Your task to perform on an android device: Open Google Chrome and click the shortcut for Amazon.com Image 0: 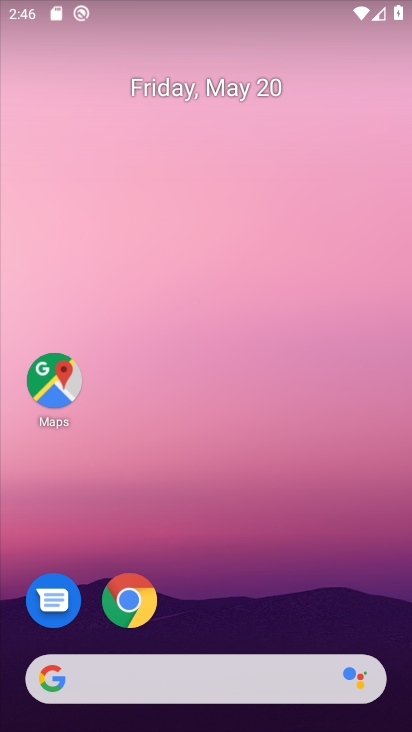
Step 0: click (139, 595)
Your task to perform on an android device: Open Google Chrome and click the shortcut for Amazon.com Image 1: 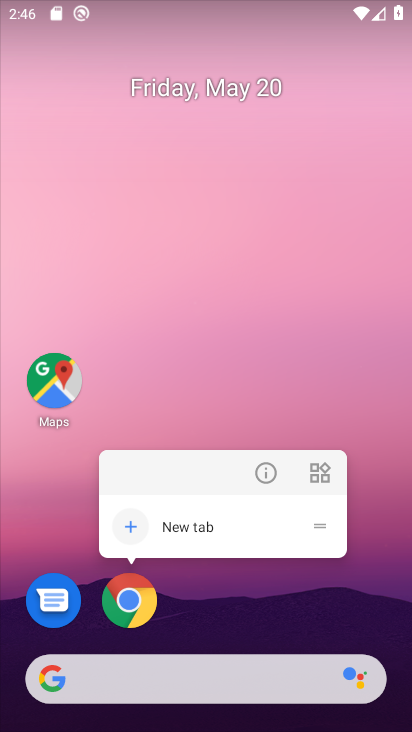
Step 1: click (139, 597)
Your task to perform on an android device: Open Google Chrome and click the shortcut for Amazon.com Image 2: 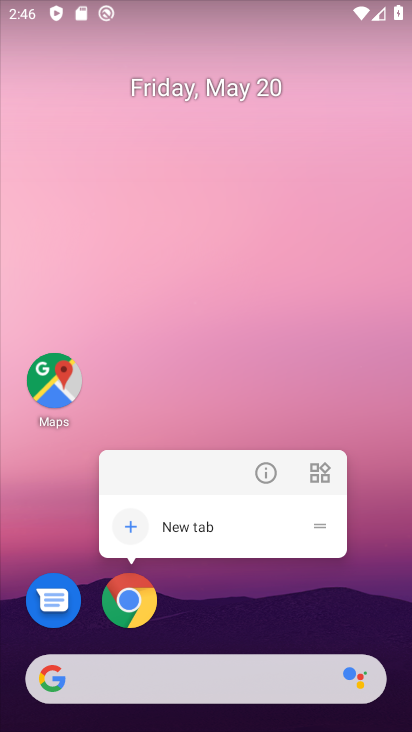
Step 2: click (139, 597)
Your task to perform on an android device: Open Google Chrome and click the shortcut for Amazon.com Image 3: 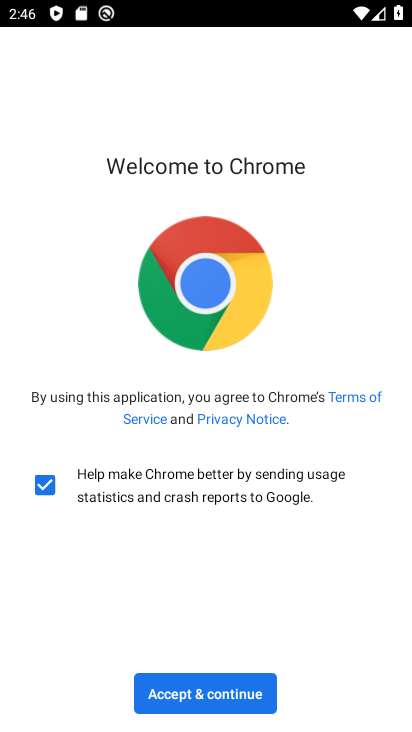
Step 3: click (219, 690)
Your task to perform on an android device: Open Google Chrome and click the shortcut for Amazon.com Image 4: 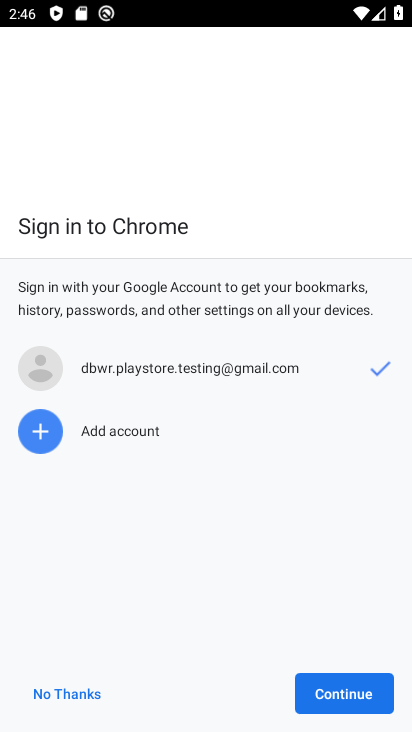
Step 4: click (358, 698)
Your task to perform on an android device: Open Google Chrome and click the shortcut for Amazon.com Image 5: 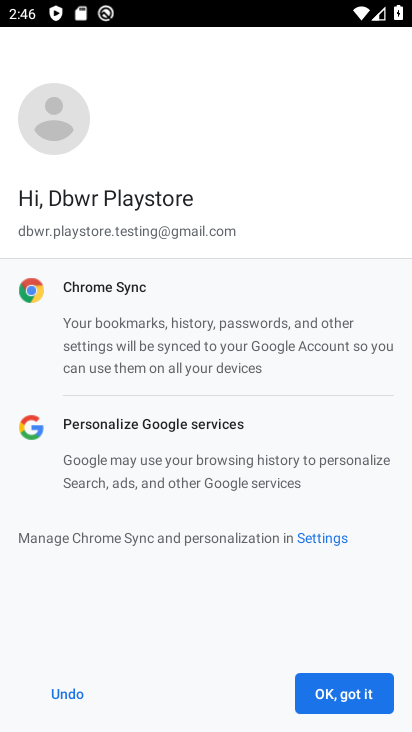
Step 5: click (354, 690)
Your task to perform on an android device: Open Google Chrome and click the shortcut for Amazon.com Image 6: 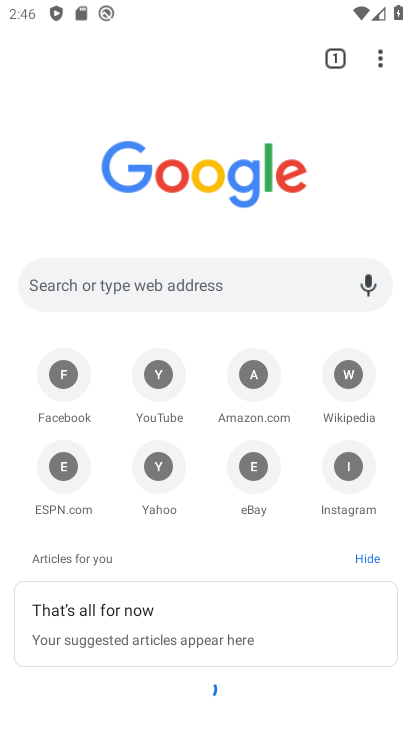
Step 6: click (250, 378)
Your task to perform on an android device: Open Google Chrome and click the shortcut for Amazon.com Image 7: 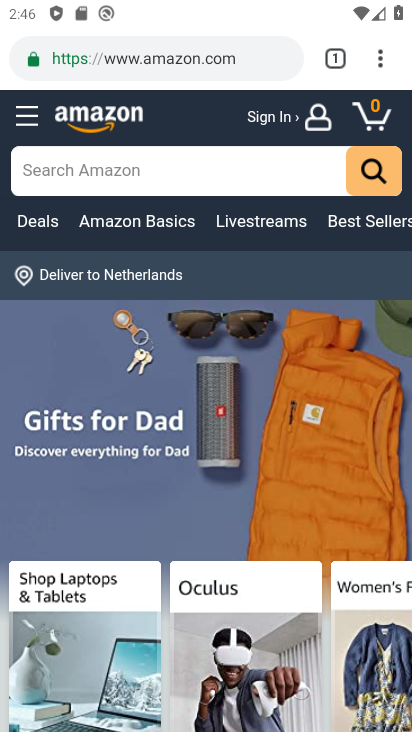
Step 7: task complete